Your task to perform on an android device: Go to Yahoo.com Image 0: 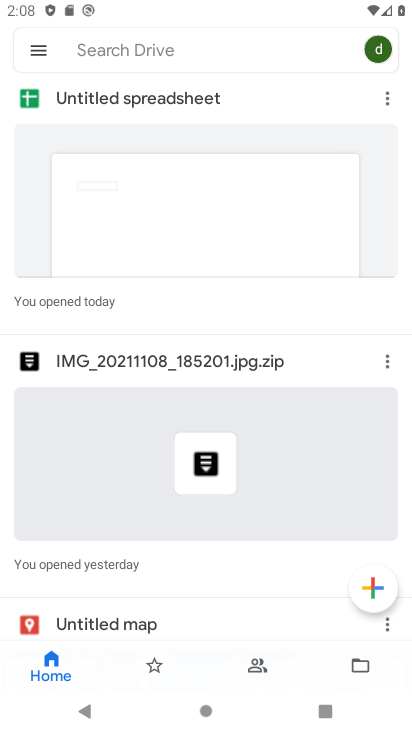
Step 0: press home button
Your task to perform on an android device: Go to Yahoo.com Image 1: 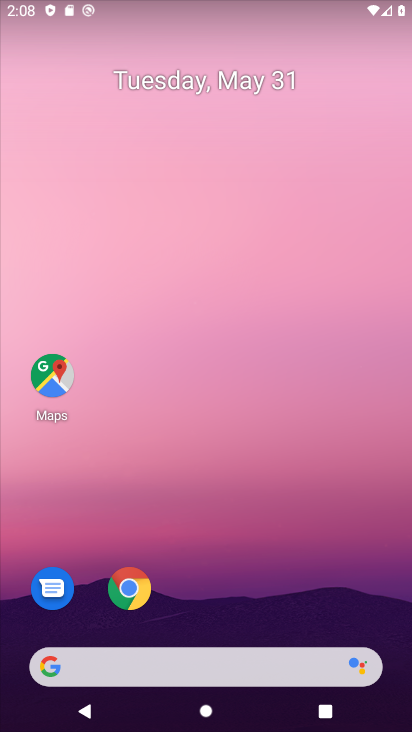
Step 1: click (116, 591)
Your task to perform on an android device: Go to Yahoo.com Image 2: 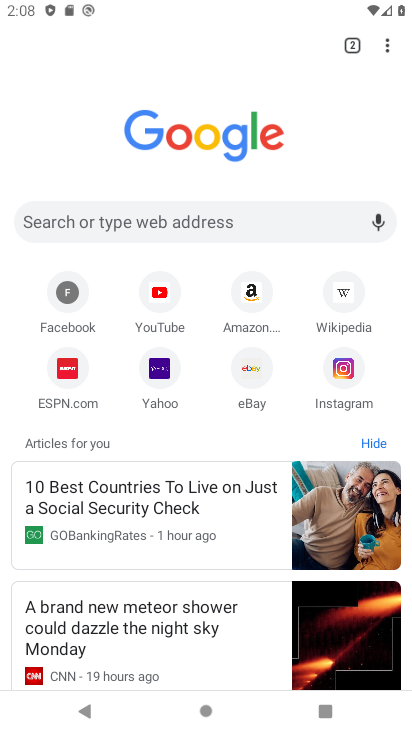
Step 2: click (169, 378)
Your task to perform on an android device: Go to Yahoo.com Image 3: 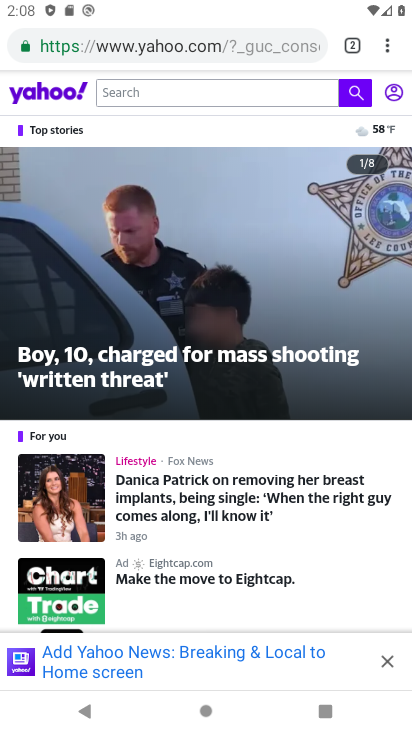
Step 3: task complete